Your task to perform on an android device: turn on bluetooth scan Image 0: 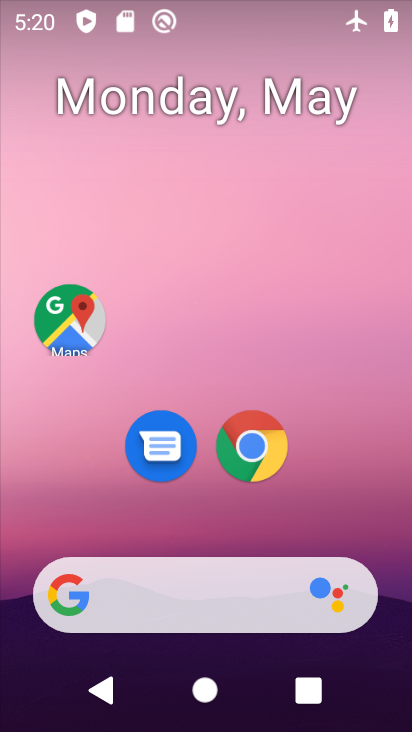
Step 0: drag from (328, 516) to (245, 115)
Your task to perform on an android device: turn on bluetooth scan Image 1: 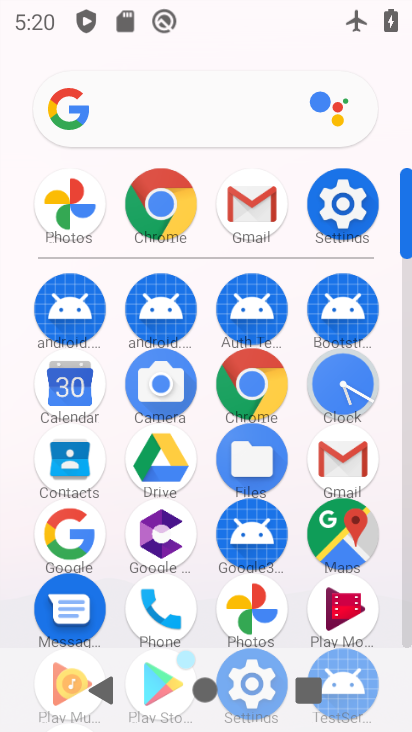
Step 1: click (245, 115)
Your task to perform on an android device: turn on bluetooth scan Image 2: 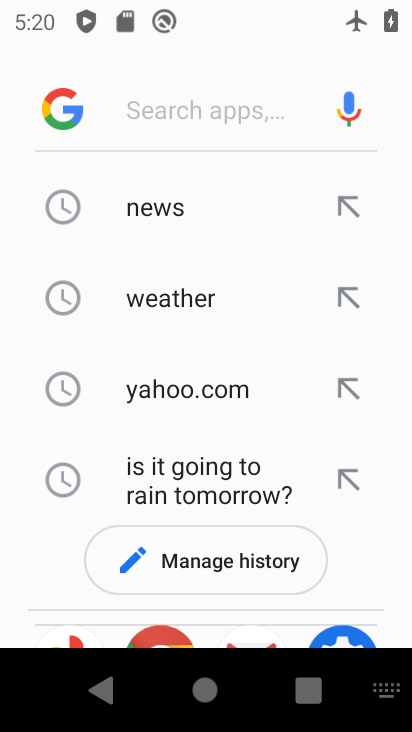
Step 2: click (245, 115)
Your task to perform on an android device: turn on bluetooth scan Image 3: 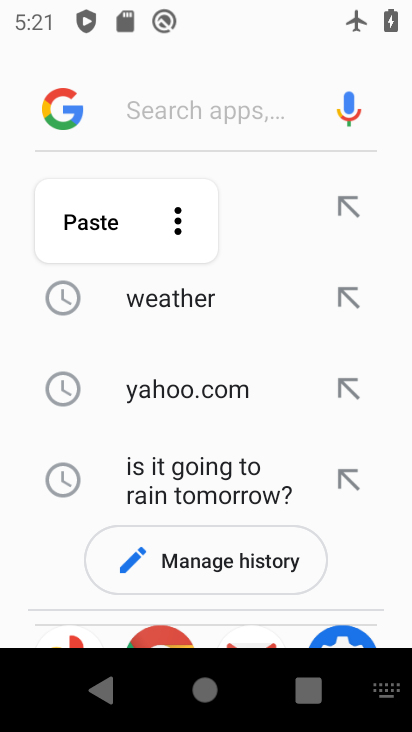
Step 3: click (245, 115)
Your task to perform on an android device: turn on bluetooth scan Image 4: 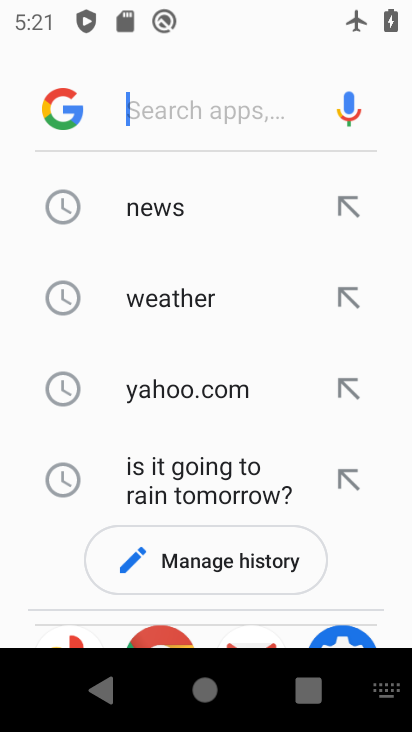
Step 4: press home button
Your task to perform on an android device: turn on bluetooth scan Image 5: 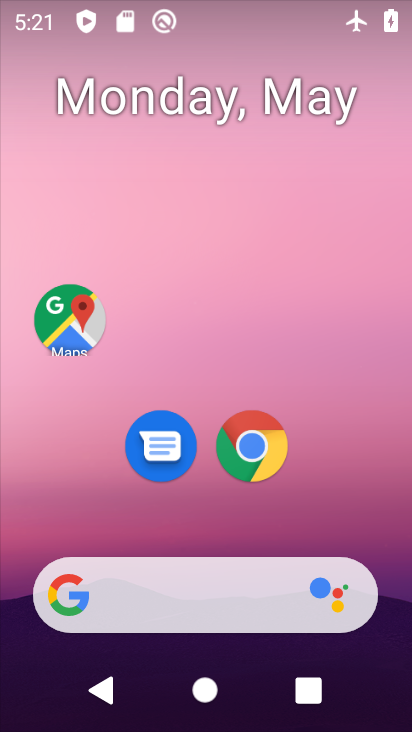
Step 5: drag from (366, 497) to (390, 17)
Your task to perform on an android device: turn on bluetooth scan Image 6: 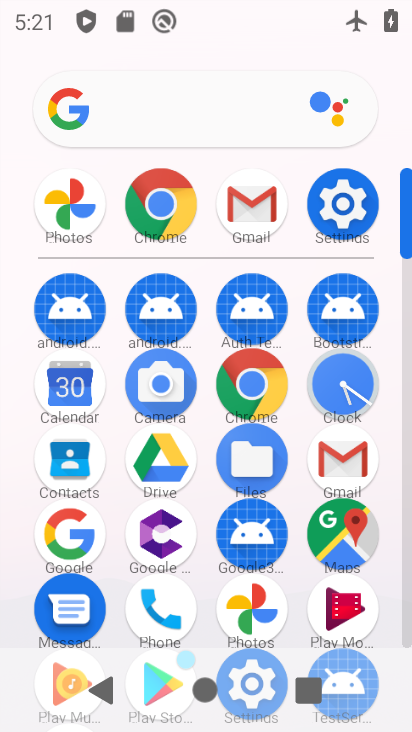
Step 6: click (347, 205)
Your task to perform on an android device: turn on bluetooth scan Image 7: 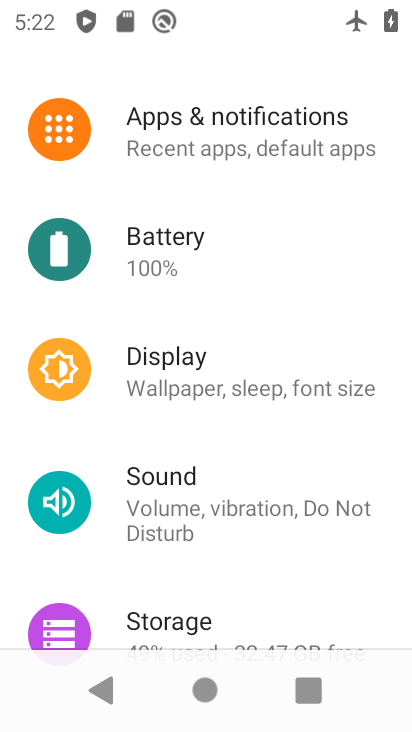
Step 7: drag from (247, 424) to (246, 210)
Your task to perform on an android device: turn on bluetooth scan Image 8: 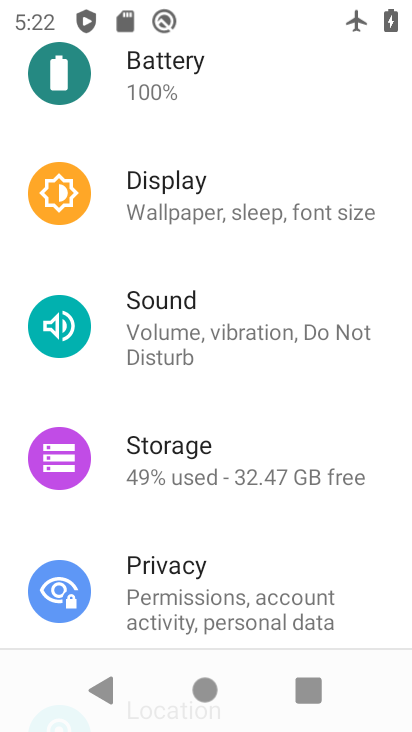
Step 8: drag from (224, 401) to (224, 142)
Your task to perform on an android device: turn on bluetooth scan Image 9: 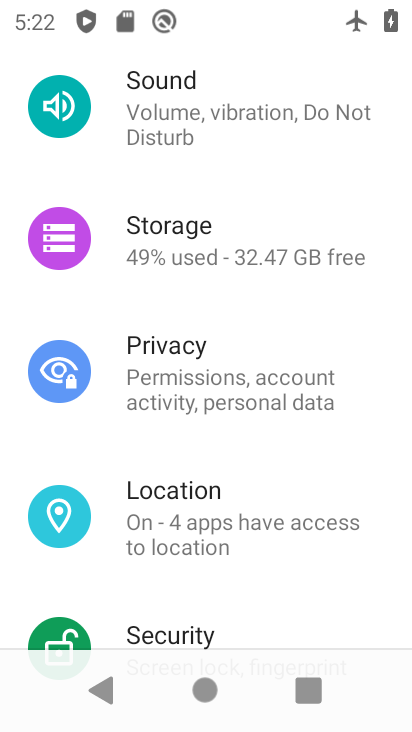
Step 9: click (185, 495)
Your task to perform on an android device: turn on bluetooth scan Image 10: 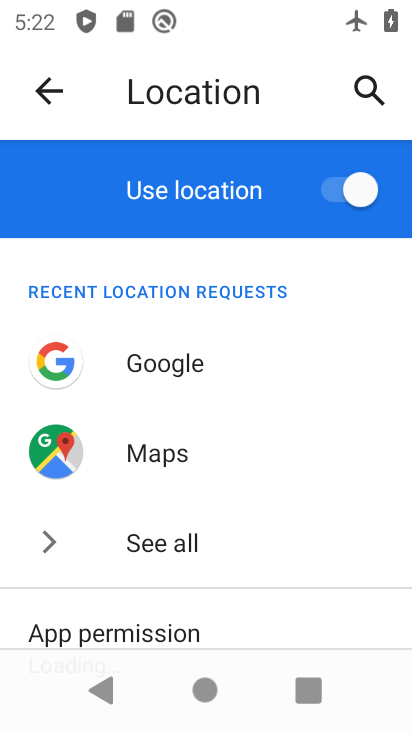
Step 10: drag from (260, 543) to (207, 169)
Your task to perform on an android device: turn on bluetooth scan Image 11: 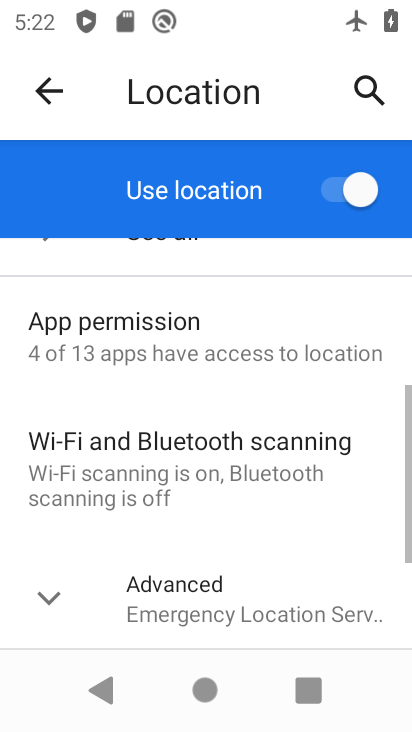
Step 11: click (116, 446)
Your task to perform on an android device: turn on bluetooth scan Image 12: 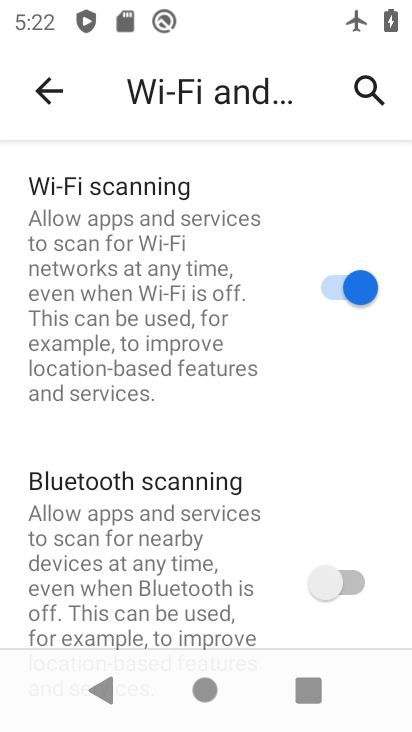
Step 12: click (313, 588)
Your task to perform on an android device: turn on bluetooth scan Image 13: 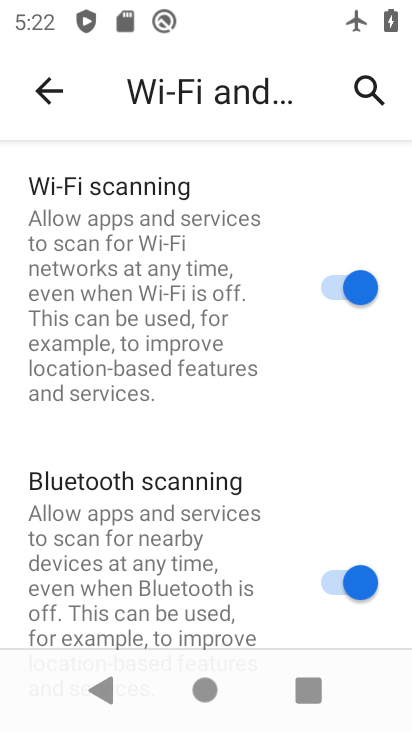
Step 13: task complete